Your task to perform on an android device: remove spam from my inbox in the gmail app Image 0: 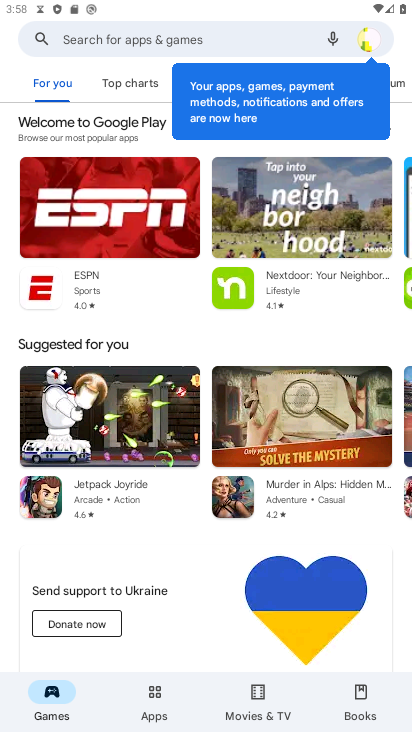
Step 0: press home button
Your task to perform on an android device: remove spam from my inbox in the gmail app Image 1: 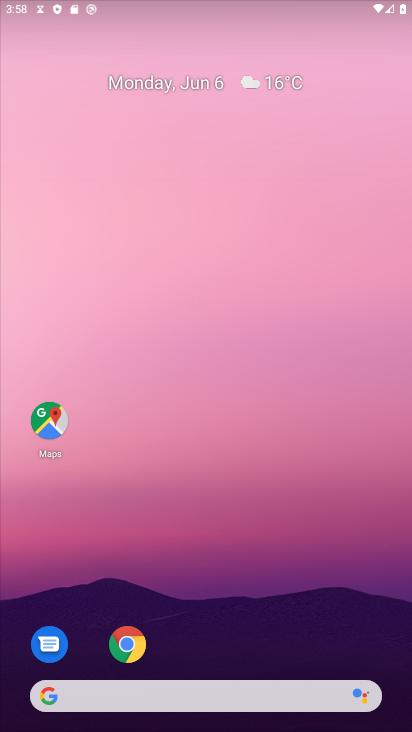
Step 1: drag from (119, 729) to (156, 42)
Your task to perform on an android device: remove spam from my inbox in the gmail app Image 2: 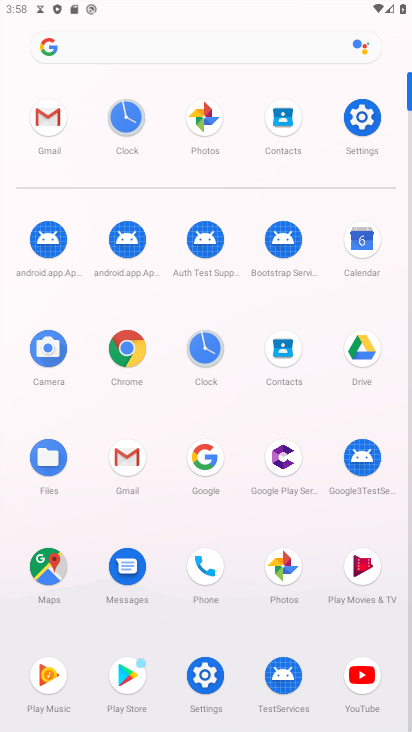
Step 2: click (120, 467)
Your task to perform on an android device: remove spam from my inbox in the gmail app Image 3: 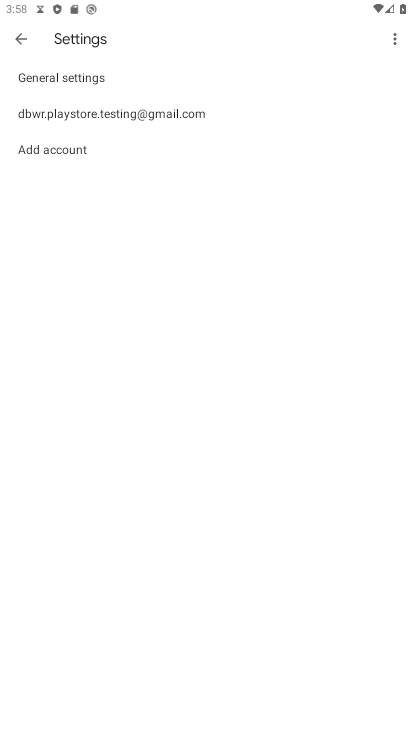
Step 3: click (25, 44)
Your task to perform on an android device: remove spam from my inbox in the gmail app Image 4: 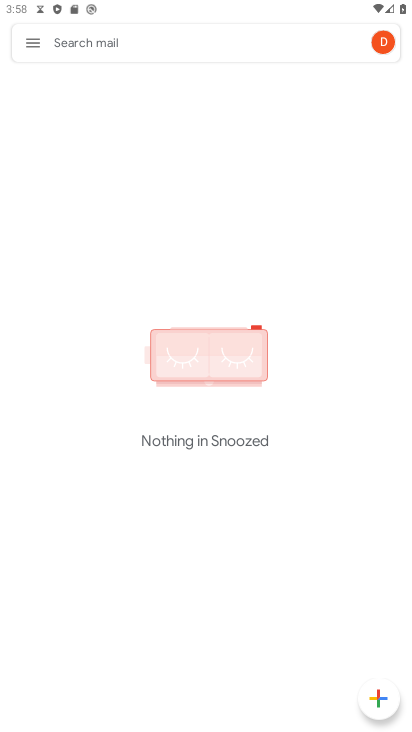
Step 4: click (25, 41)
Your task to perform on an android device: remove spam from my inbox in the gmail app Image 5: 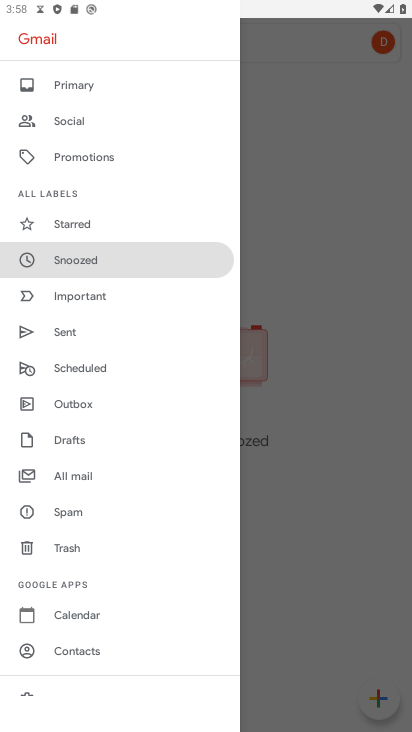
Step 5: click (68, 511)
Your task to perform on an android device: remove spam from my inbox in the gmail app Image 6: 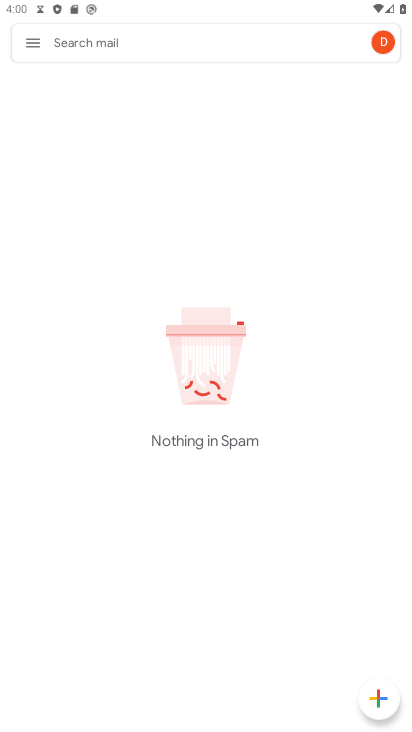
Step 6: task complete